Your task to perform on an android device: change the clock display to digital Image 0: 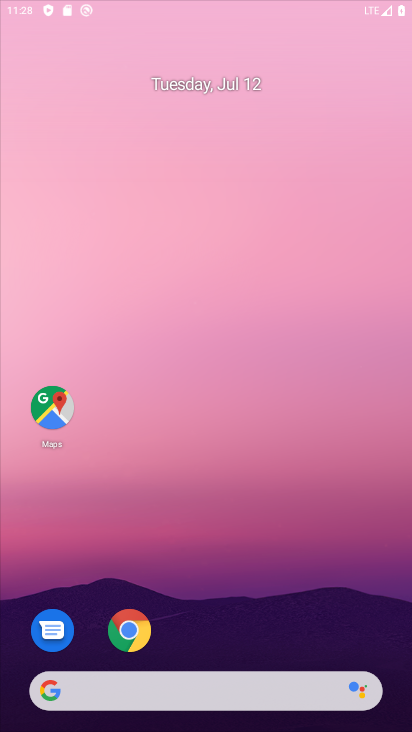
Step 0: drag from (405, 649) to (193, 82)
Your task to perform on an android device: change the clock display to digital Image 1: 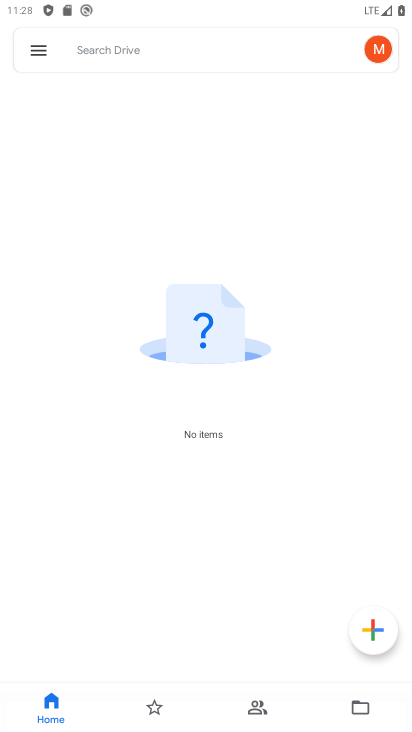
Step 1: press home button
Your task to perform on an android device: change the clock display to digital Image 2: 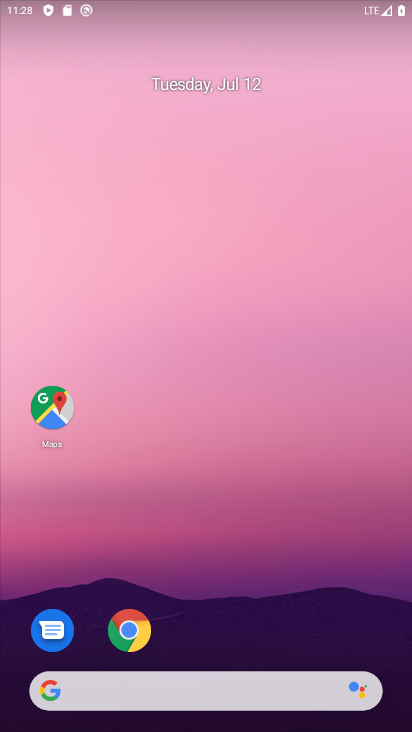
Step 2: drag from (390, 670) to (235, 24)
Your task to perform on an android device: change the clock display to digital Image 3: 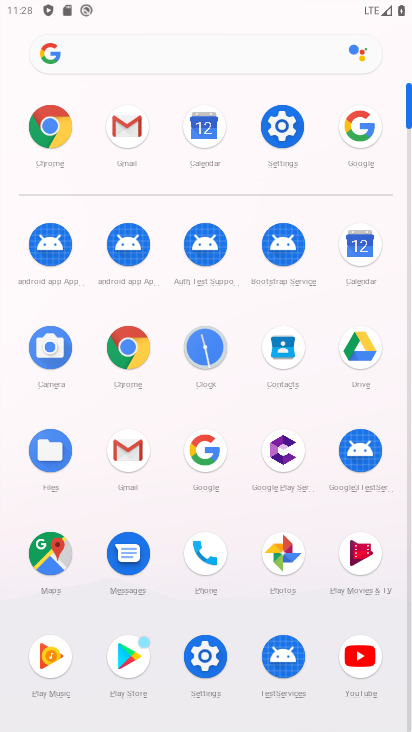
Step 3: click (210, 363)
Your task to perform on an android device: change the clock display to digital Image 4: 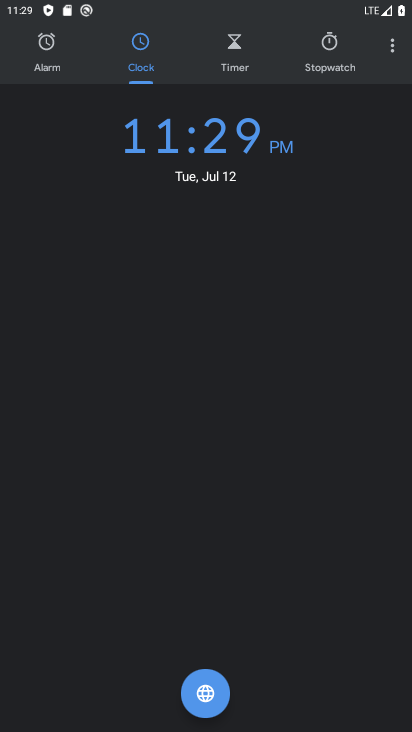
Step 4: click (390, 41)
Your task to perform on an android device: change the clock display to digital Image 5: 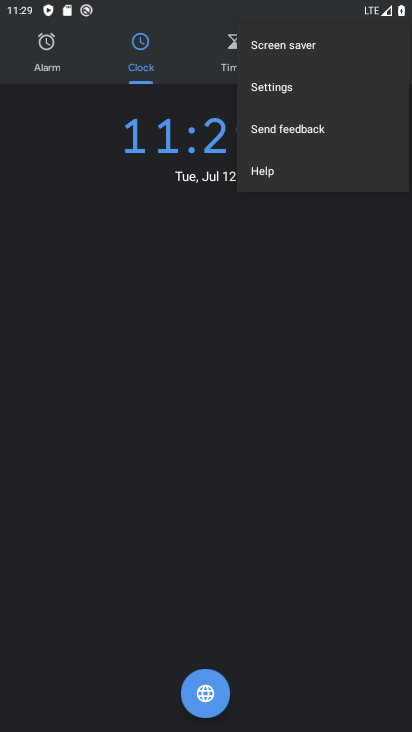
Step 5: click (316, 94)
Your task to perform on an android device: change the clock display to digital Image 6: 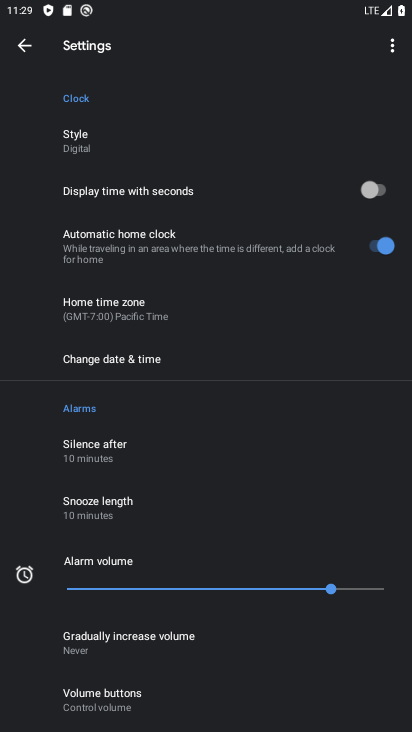
Step 6: click (94, 142)
Your task to perform on an android device: change the clock display to digital Image 7: 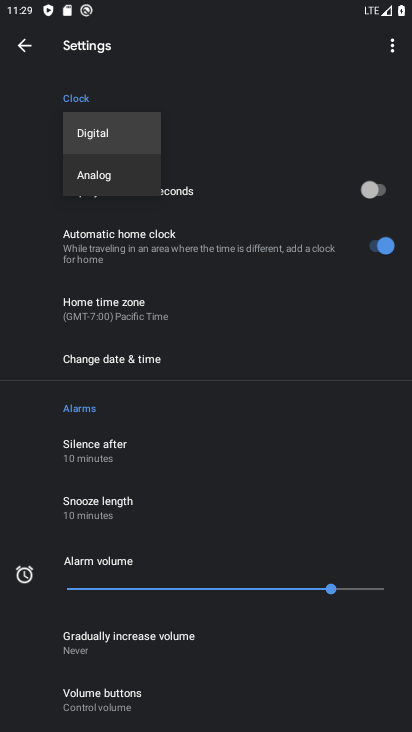
Step 7: click (113, 134)
Your task to perform on an android device: change the clock display to digital Image 8: 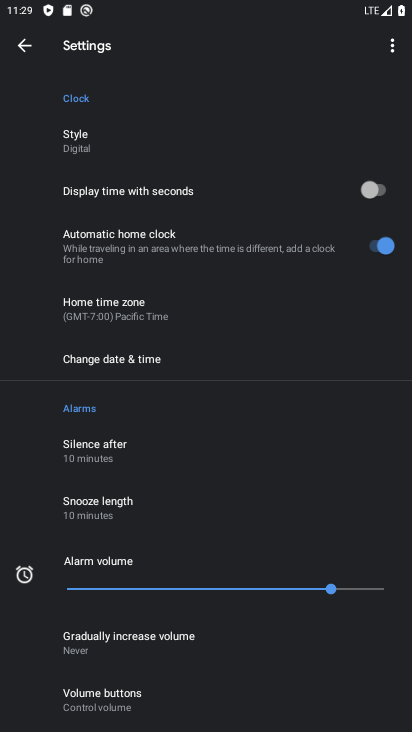
Step 8: task complete